Your task to perform on an android device: What is the news today? Image 0: 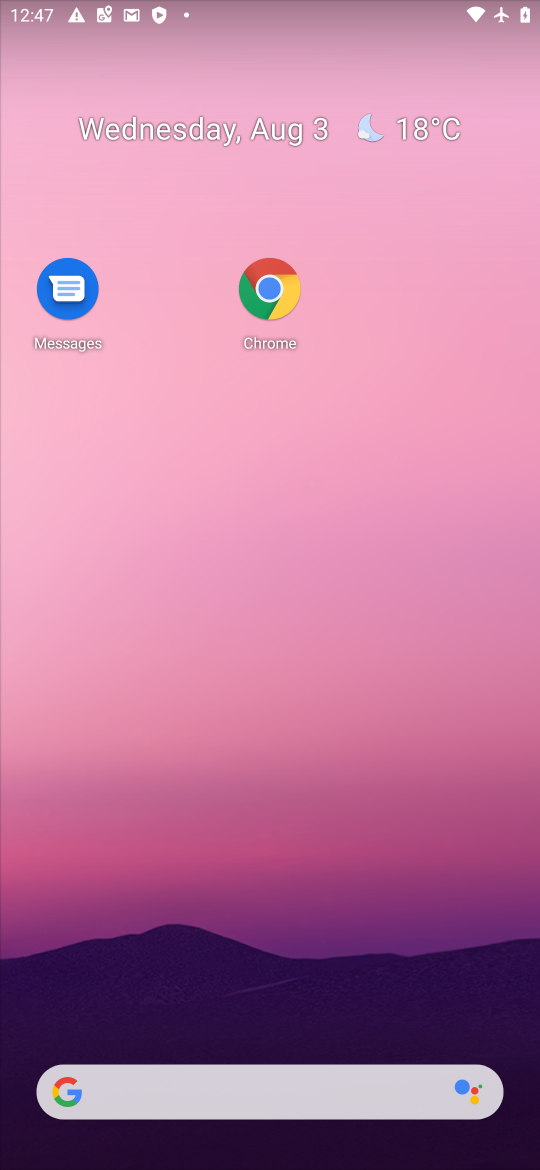
Step 0: drag from (211, 1043) to (154, 137)
Your task to perform on an android device: What is the news today? Image 1: 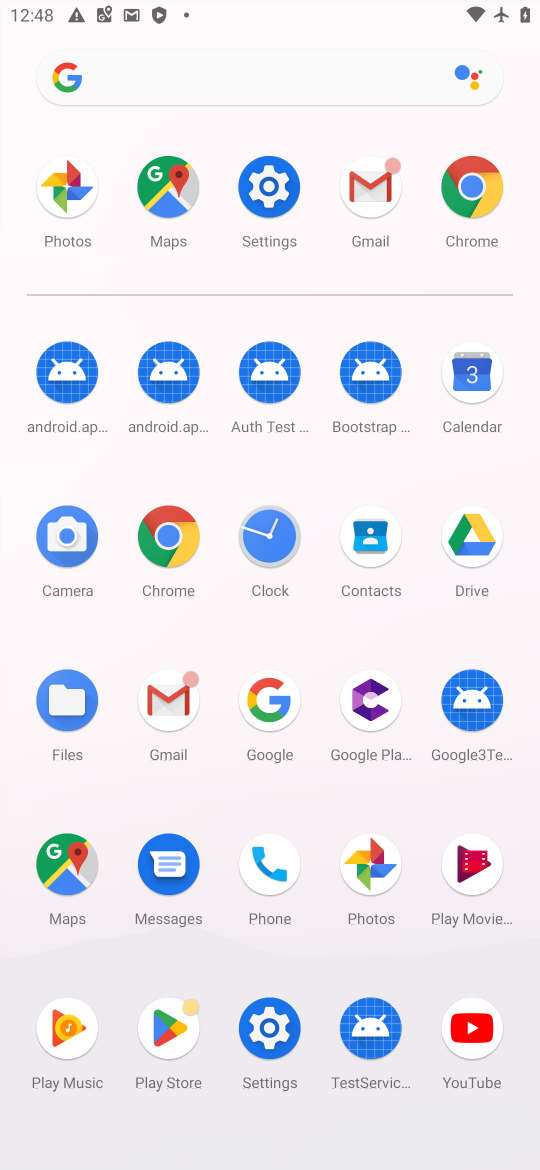
Step 1: click (182, 99)
Your task to perform on an android device: What is the news today? Image 2: 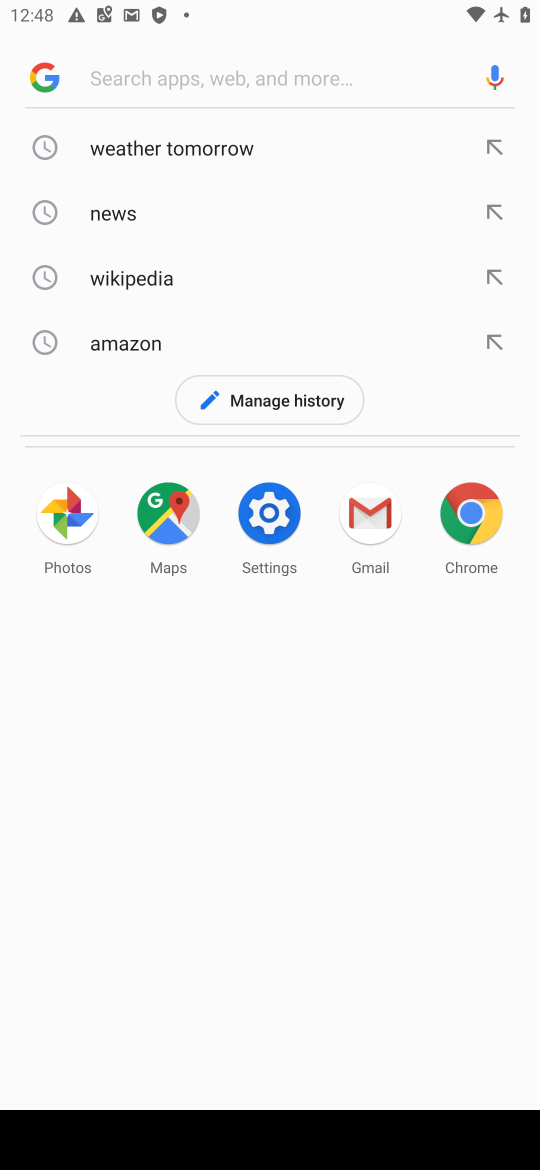
Step 2: click (213, 220)
Your task to perform on an android device: What is the news today? Image 3: 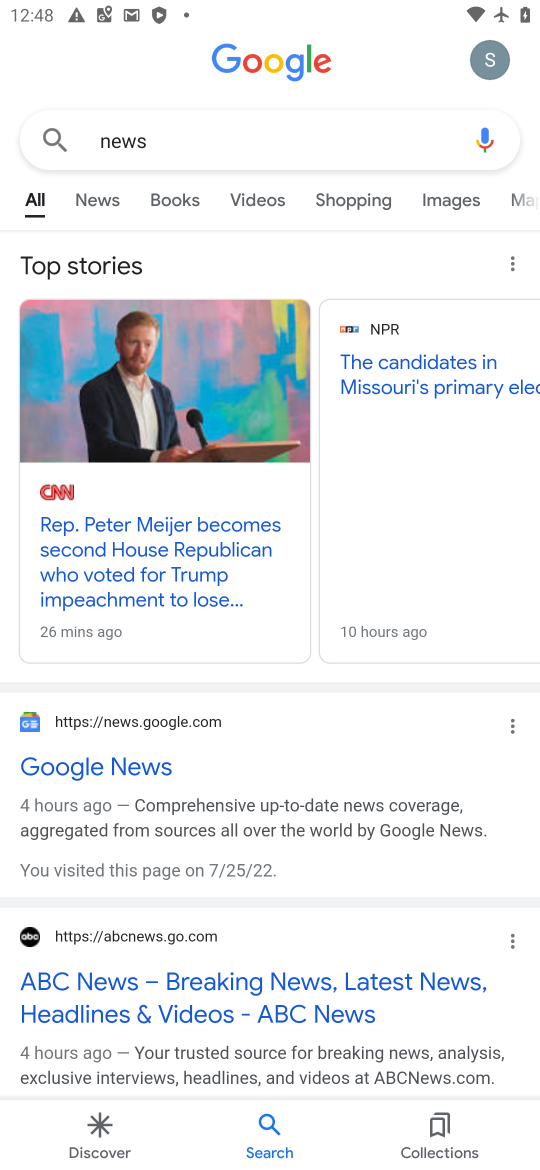
Step 3: task complete